Your task to perform on an android device: turn off smart reply in the gmail app Image 0: 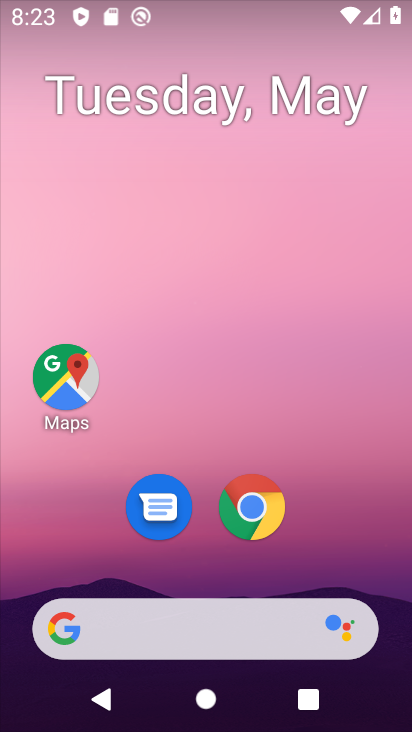
Step 0: drag from (401, 588) to (310, 129)
Your task to perform on an android device: turn off smart reply in the gmail app Image 1: 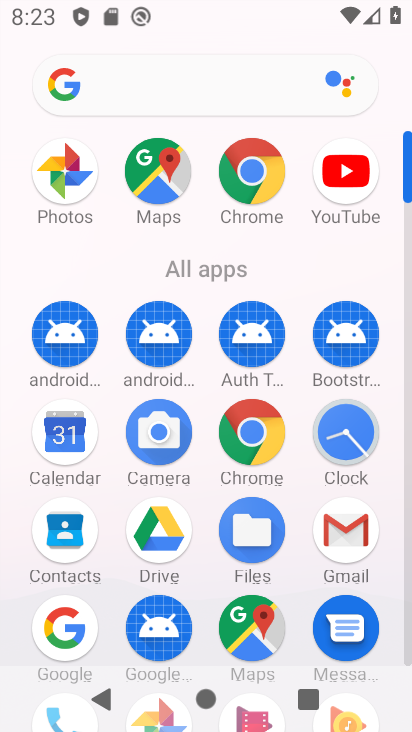
Step 1: click (368, 542)
Your task to perform on an android device: turn off smart reply in the gmail app Image 2: 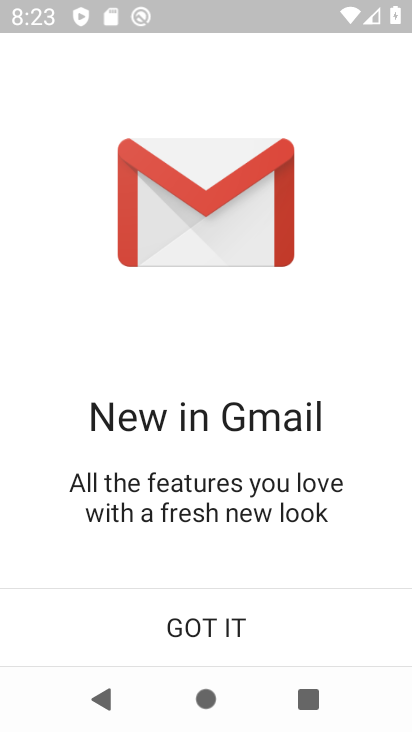
Step 2: click (224, 634)
Your task to perform on an android device: turn off smart reply in the gmail app Image 3: 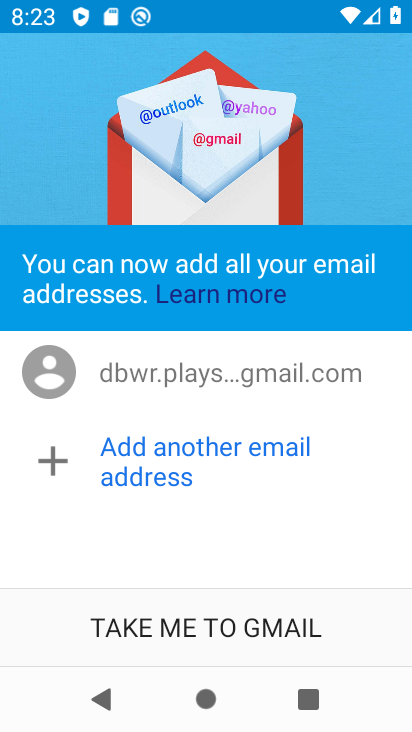
Step 3: click (224, 634)
Your task to perform on an android device: turn off smart reply in the gmail app Image 4: 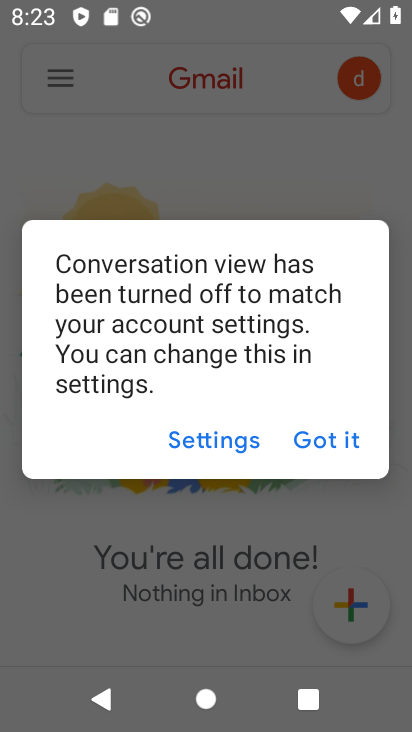
Step 4: click (360, 456)
Your task to perform on an android device: turn off smart reply in the gmail app Image 5: 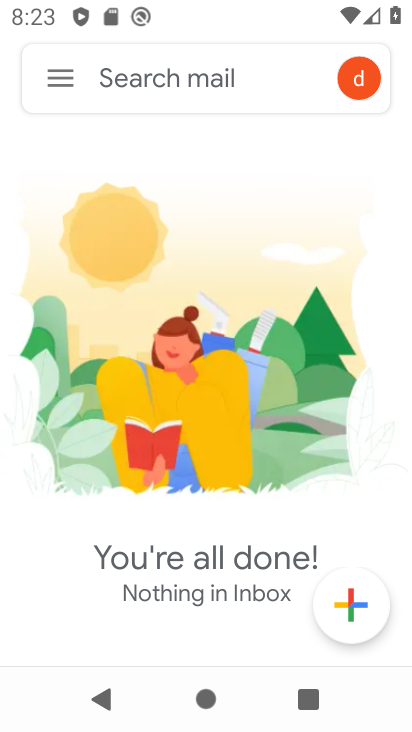
Step 5: click (63, 74)
Your task to perform on an android device: turn off smart reply in the gmail app Image 6: 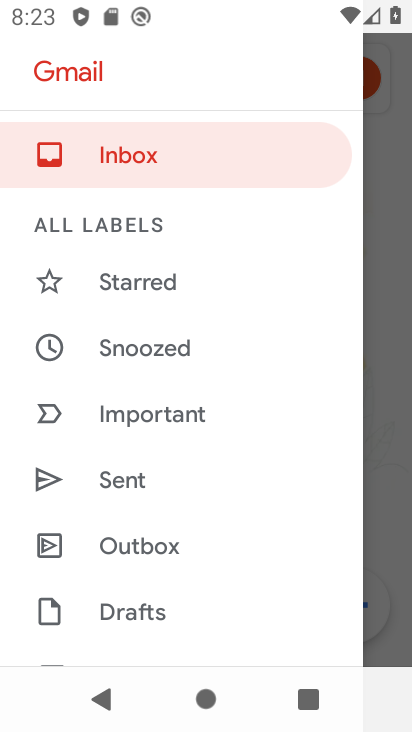
Step 6: drag from (212, 637) to (133, 270)
Your task to perform on an android device: turn off smart reply in the gmail app Image 7: 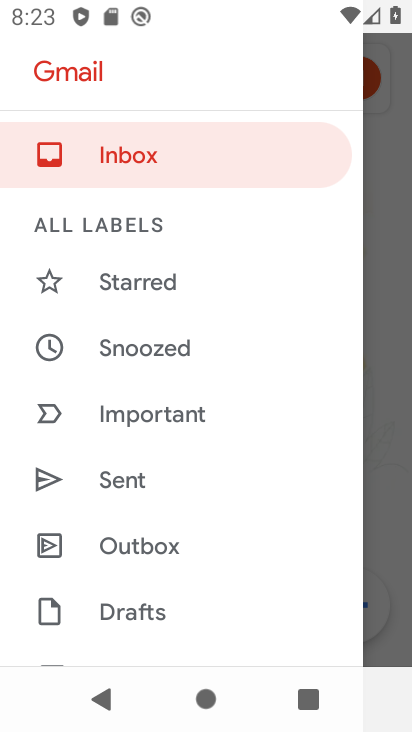
Step 7: drag from (141, 643) to (146, 263)
Your task to perform on an android device: turn off smart reply in the gmail app Image 8: 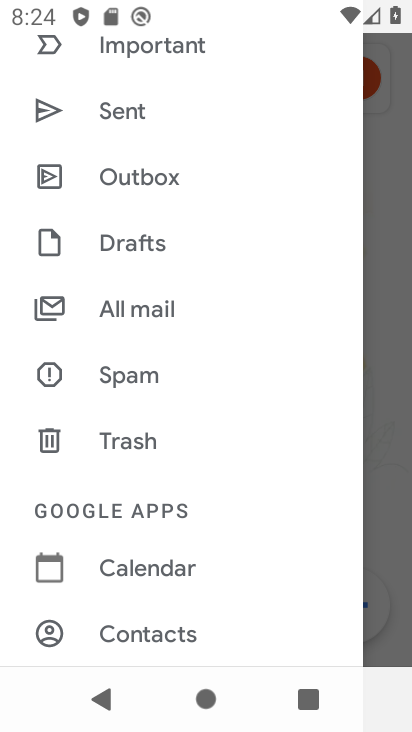
Step 8: drag from (152, 591) to (159, 368)
Your task to perform on an android device: turn off smart reply in the gmail app Image 9: 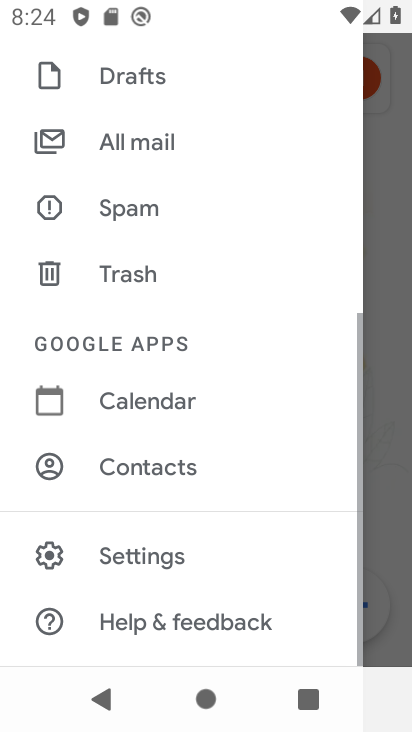
Step 9: click (155, 563)
Your task to perform on an android device: turn off smart reply in the gmail app Image 10: 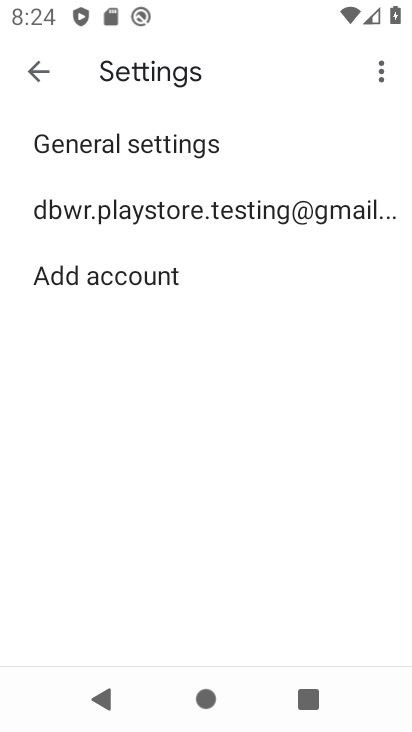
Step 10: click (167, 208)
Your task to perform on an android device: turn off smart reply in the gmail app Image 11: 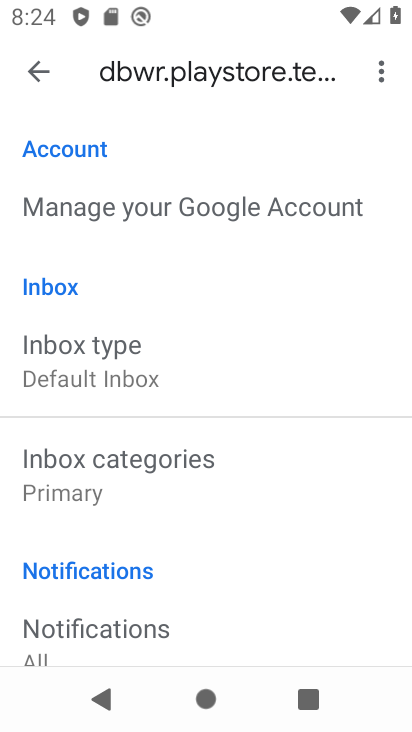
Step 11: drag from (186, 625) to (171, 145)
Your task to perform on an android device: turn off smart reply in the gmail app Image 12: 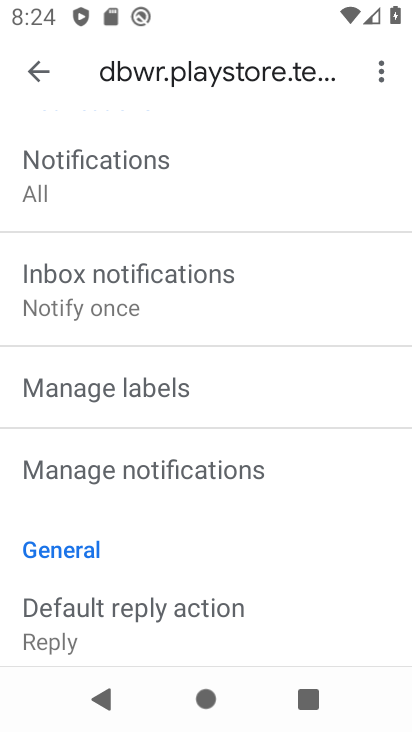
Step 12: drag from (147, 631) to (118, 190)
Your task to perform on an android device: turn off smart reply in the gmail app Image 13: 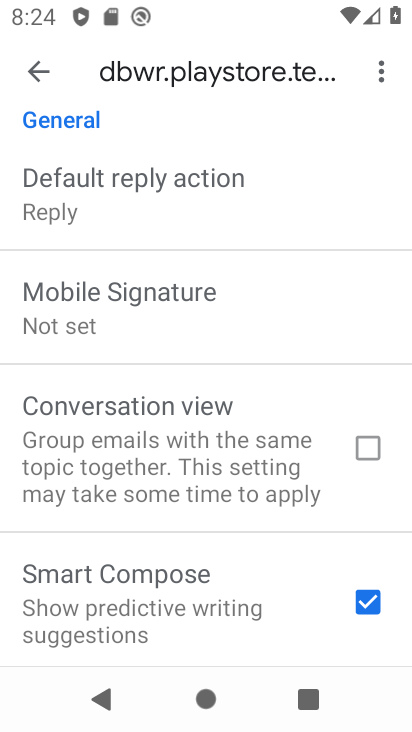
Step 13: drag from (193, 629) to (160, 309)
Your task to perform on an android device: turn off smart reply in the gmail app Image 14: 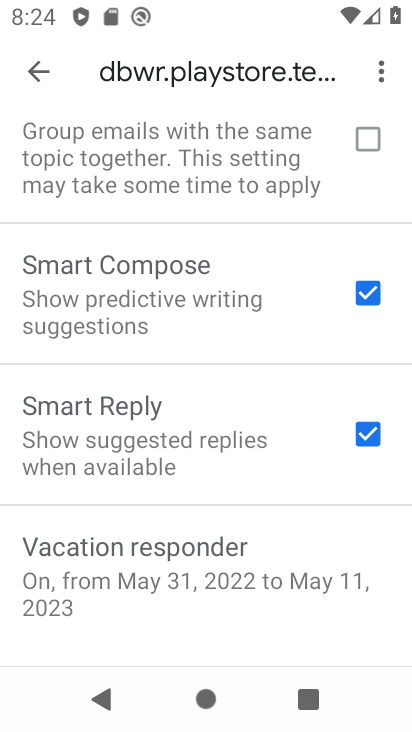
Step 14: click (352, 447)
Your task to perform on an android device: turn off smart reply in the gmail app Image 15: 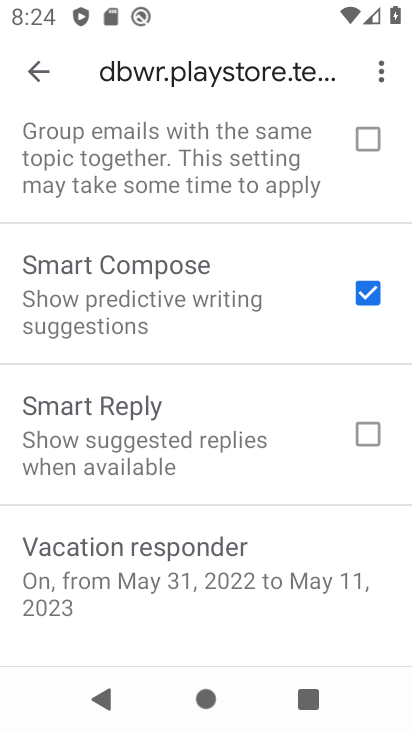
Step 15: task complete